Your task to perform on an android device: Open Reddit.com Image 0: 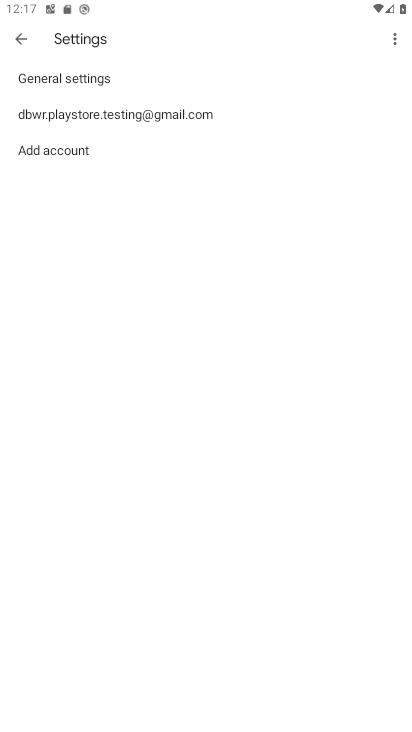
Step 0: press home button
Your task to perform on an android device: Open Reddit.com Image 1: 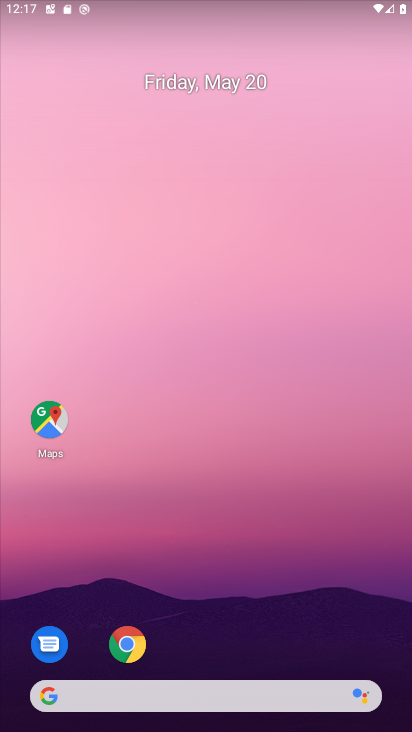
Step 1: drag from (186, 680) to (245, 329)
Your task to perform on an android device: Open Reddit.com Image 2: 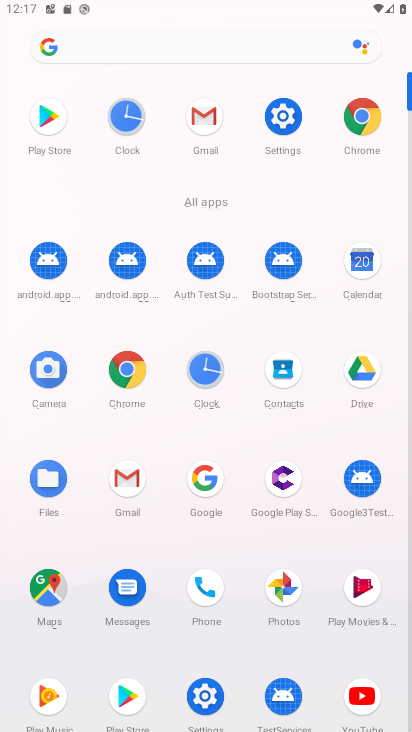
Step 2: click (194, 483)
Your task to perform on an android device: Open Reddit.com Image 3: 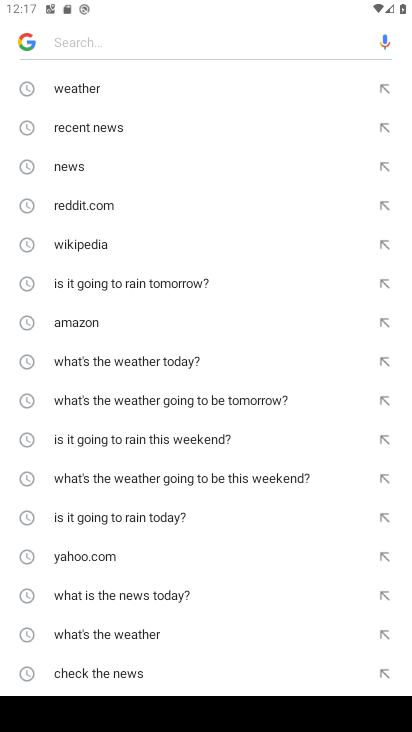
Step 3: click (116, 202)
Your task to perform on an android device: Open Reddit.com Image 4: 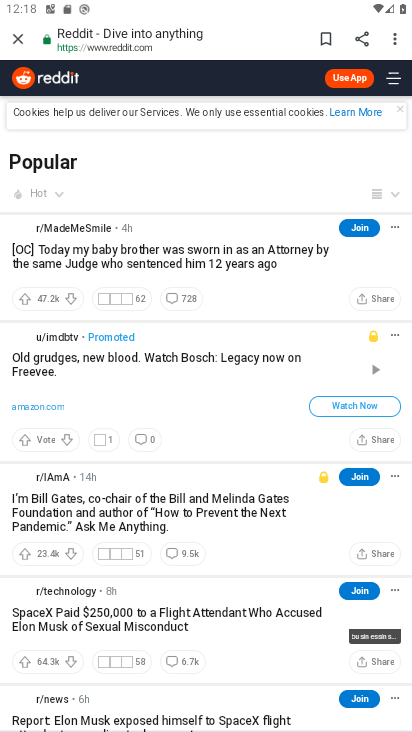
Step 4: task complete